Your task to perform on an android device: toggle notification dots Image 0: 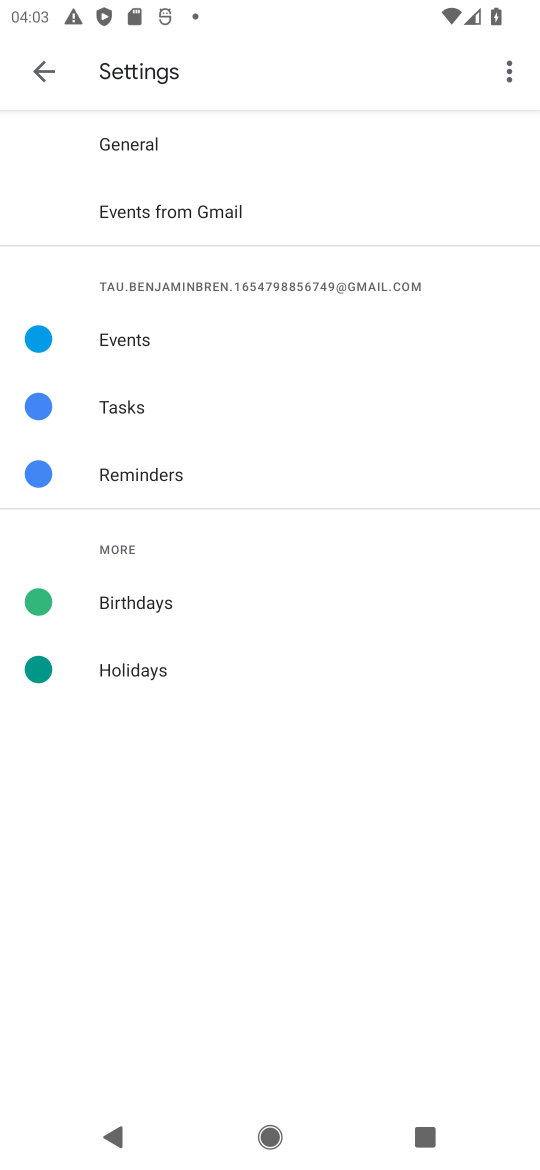
Step 0: press home button
Your task to perform on an android device: toggle notification dots Image 1: 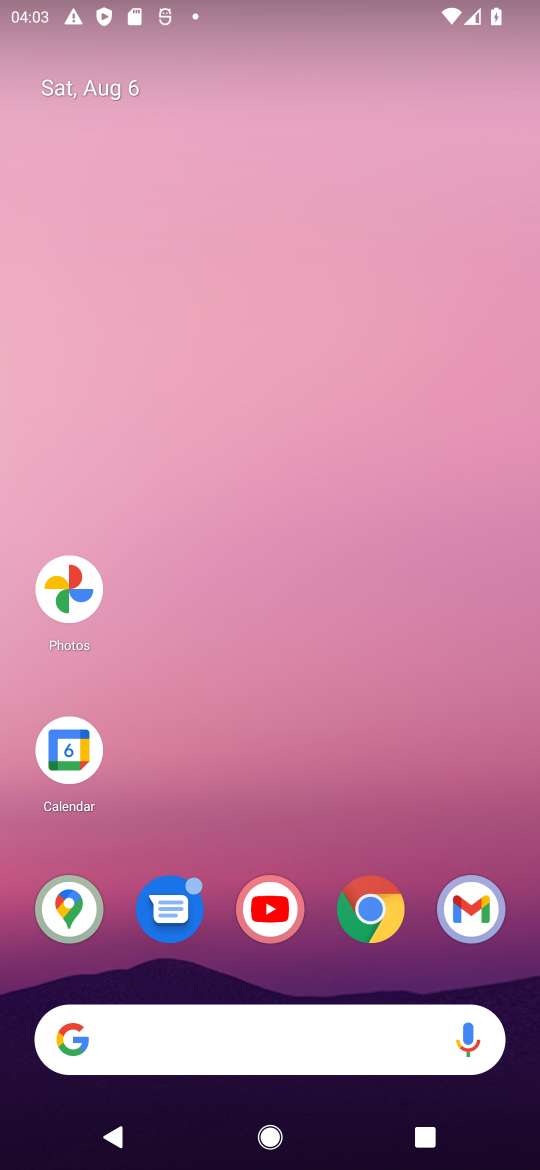
Step 1: drag from (319, 730) to (264, 106)
Your task to perform on an android device: toggle notification dots Image 2: 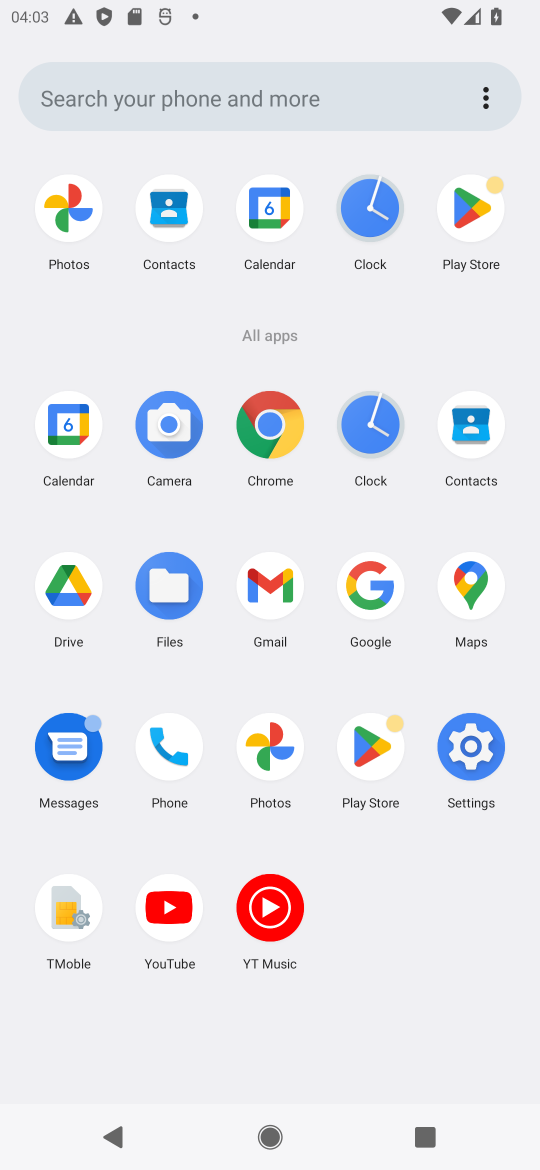
Step 2: click (461, 744)
Your task to perform on an android device: toggle notification dots Image 3: 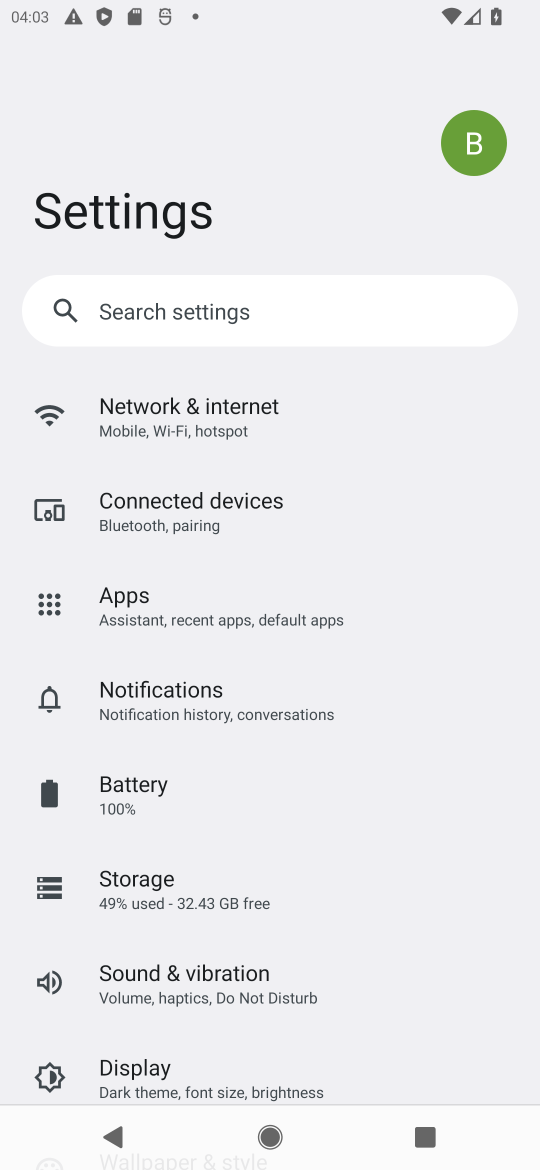
Step 3: click (133, 695)
Your task to perform on an android device: toggle notification dots Image 4: 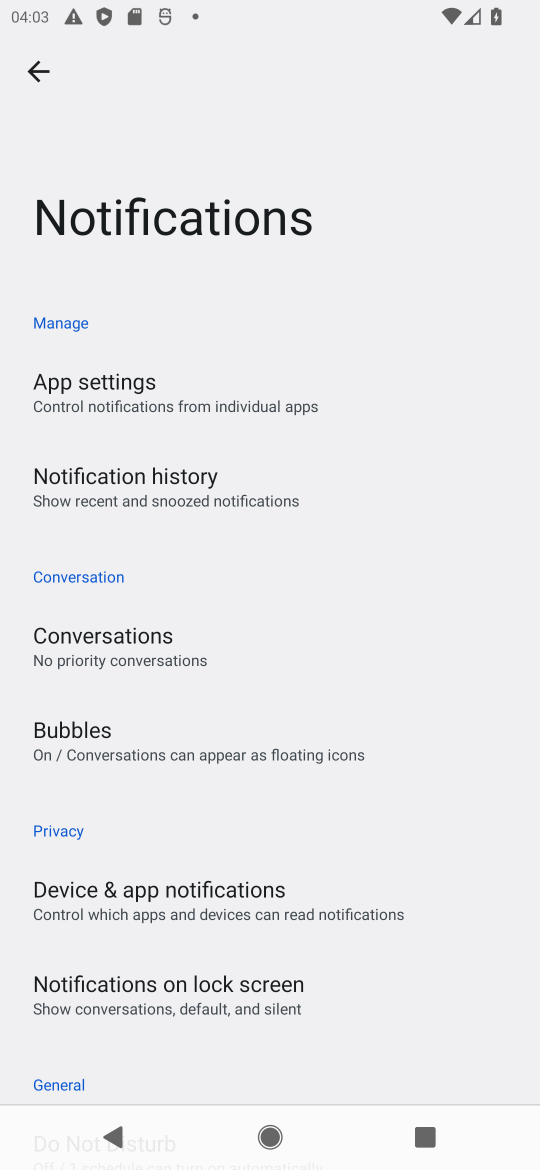
Step 4: drag from (342, 961) to (334, 295)
Your task to perform on an android device: toggle notification dots Image 5: 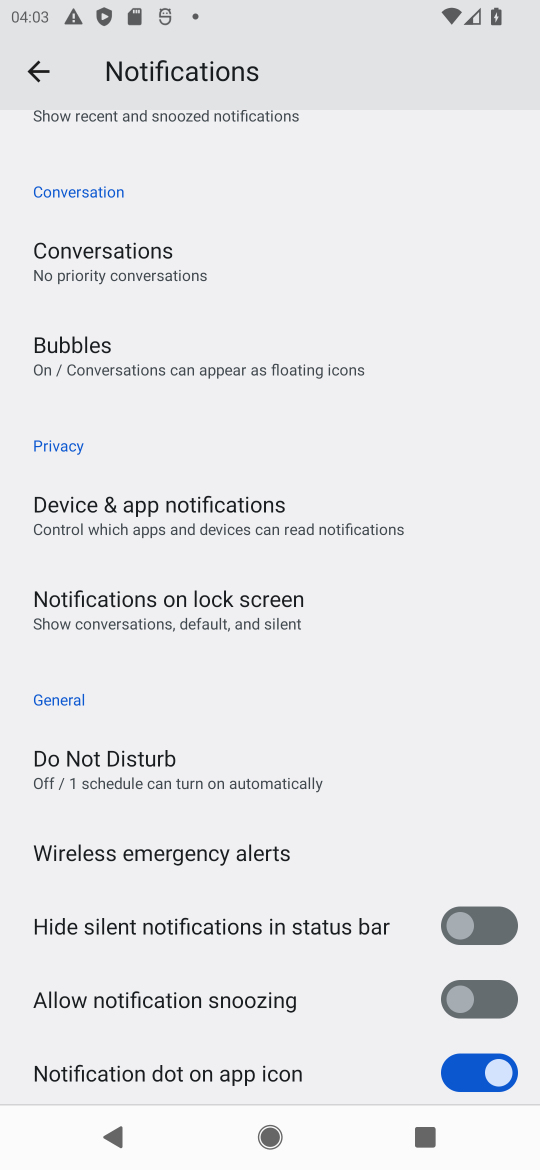
Step 5: click (492, 1070)
Your task to perform on an android device: toggle notification dots Image 6: 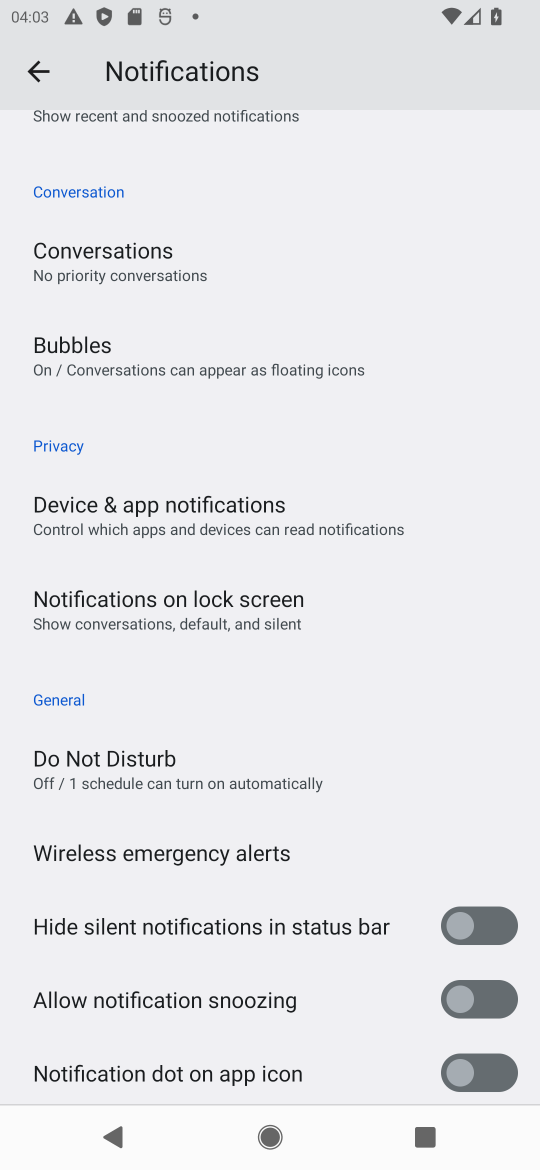
Step 6: task complete